Your task to perform on an android device: What's the weather? Image 0: 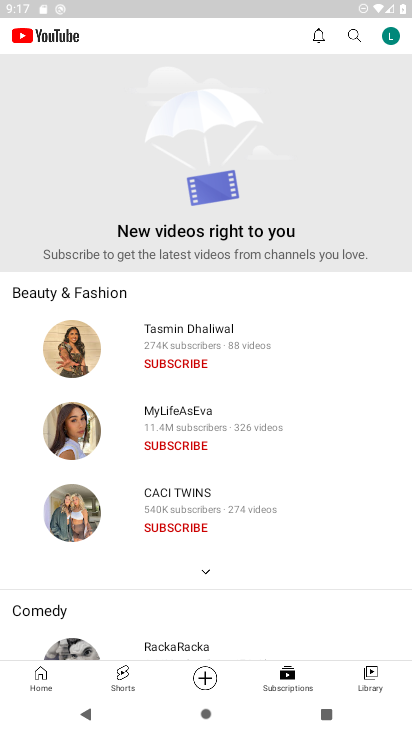
Step 0: press home button
Your task to perform on an android device: What's the weather? Image 1: 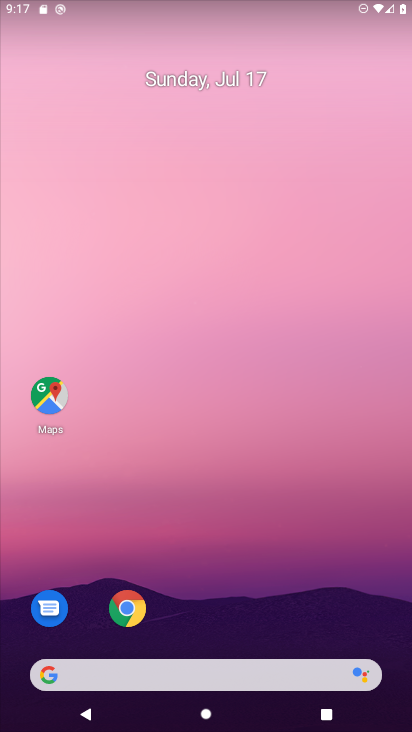
Step 1: drag from (209, 667) to (315, 124)
Your task to perform on an android device: What's the weather? Image 2: 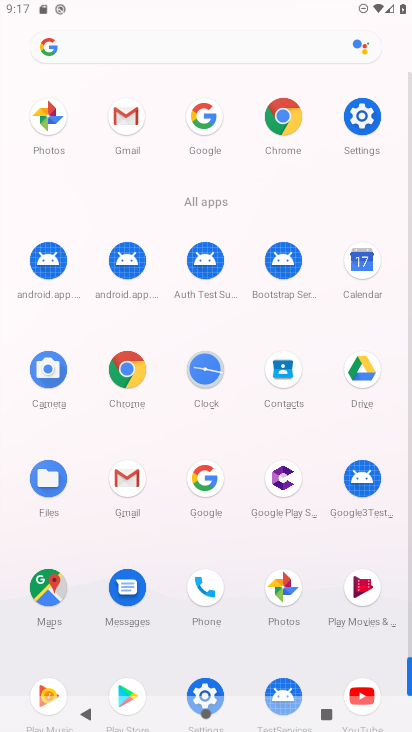
Step 2: click (200, 117)
Your task to perform on an android device: What's the weather? Image 3: 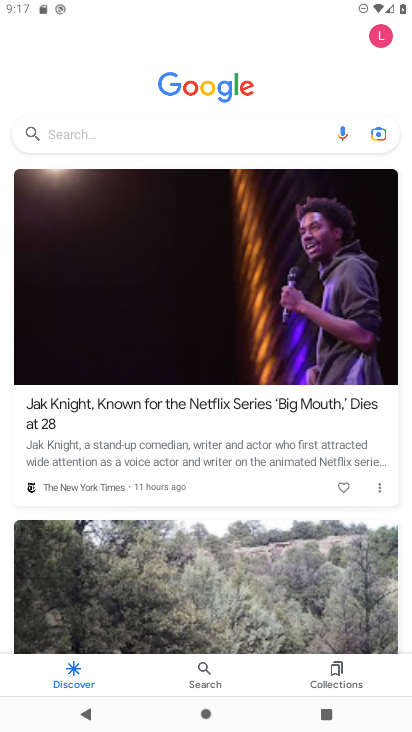
Step 3: click (200, 128)
Your task to perform on an android device: What's the weather? Image 4: 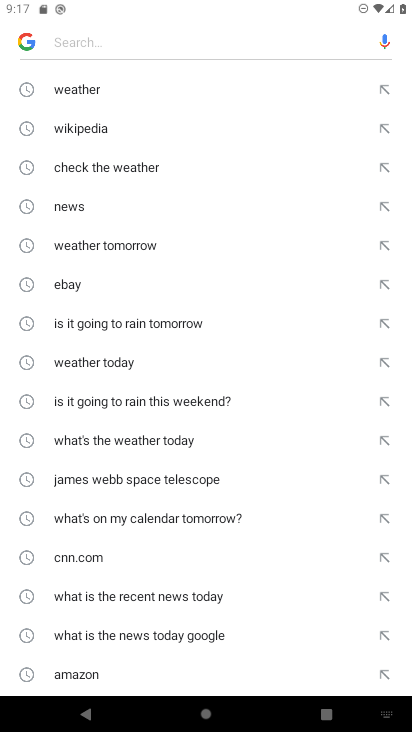
Step 4: click (80, 93)
Your task to perform on an android device: What's the weather? Image 5: 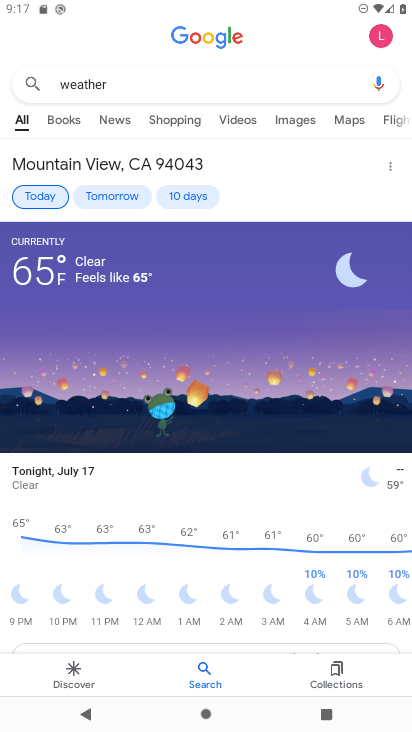
Step 5: task complete